Your task to perform on an android device: Find coffee shops on Maps Image 0: 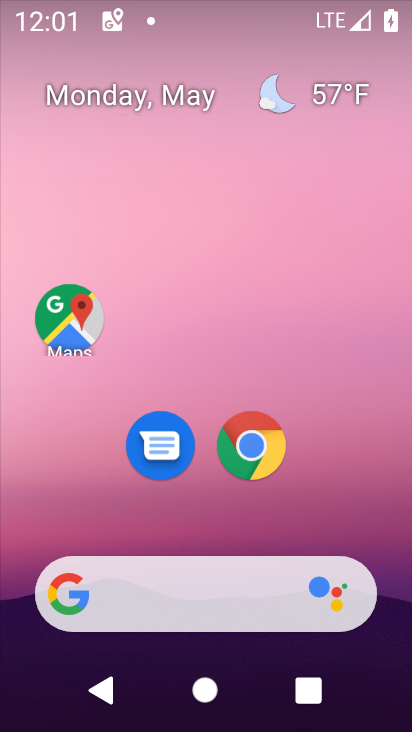
Step 0: click (59, 325)
Your task to perform on an android device: Find coffee shops on Maps Image 1: 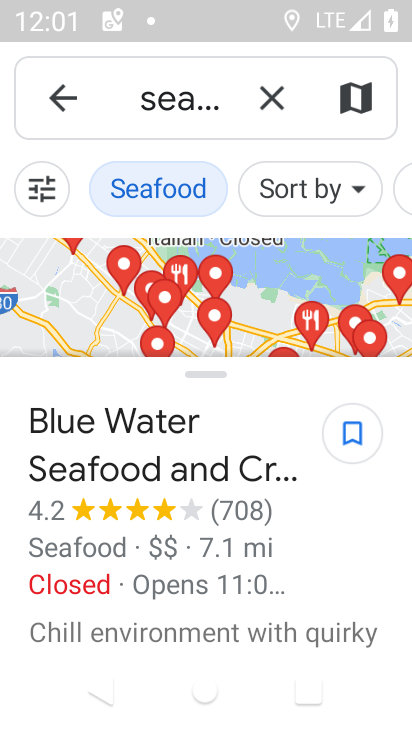
Step 1: click (276, 91)
Your task to perform on an android device: Find coffee shops on Maps Image 2: 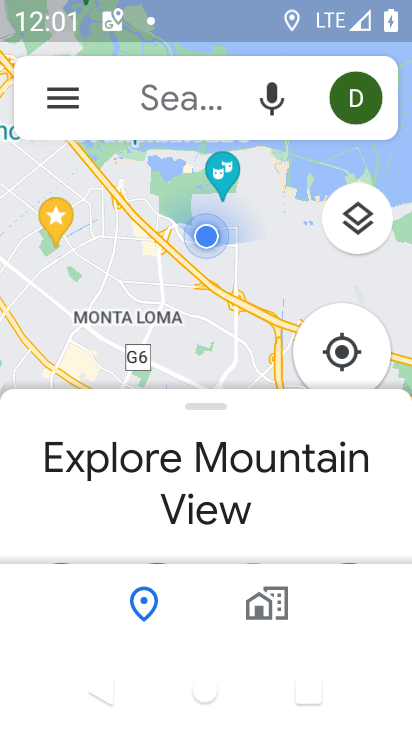
Step 2: click (167, 107)
Your task to perform on an android device: Find coffee shops on Maps Image 3: 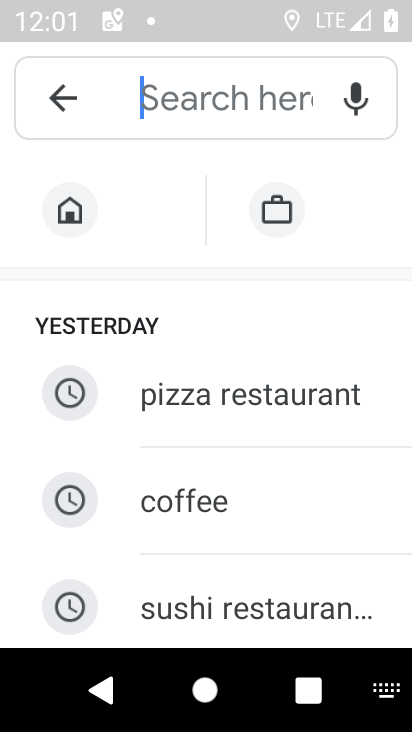
Step 3: drag from (267, 520) to (250, 225)
Your task to perform on an android device: Find coffee shops on Maps Image 4: 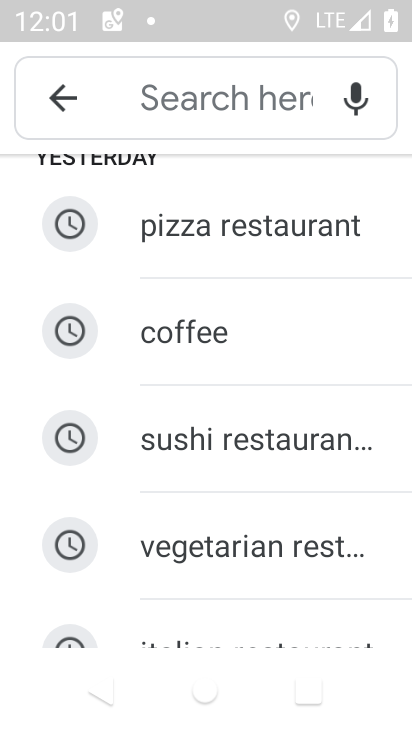
Step 4: drag from (259, 581) to (238, 211)
Your task to perform on an android device: Find coffee shops on Maps Image 5: 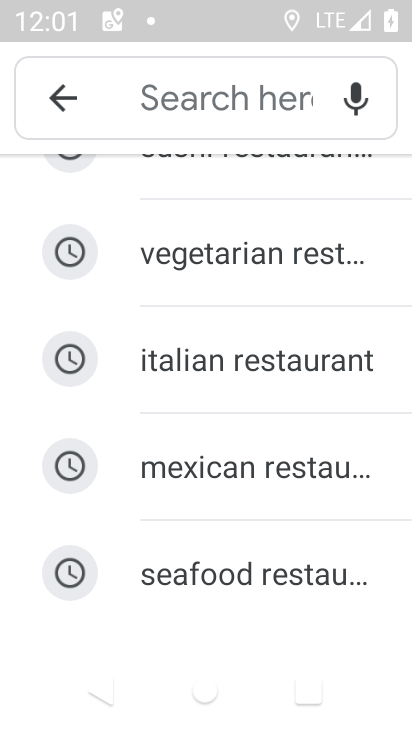
Step 5: type "coffee shops"
Your task to perform on an android device: Find coffee shops on Maps Image 6: 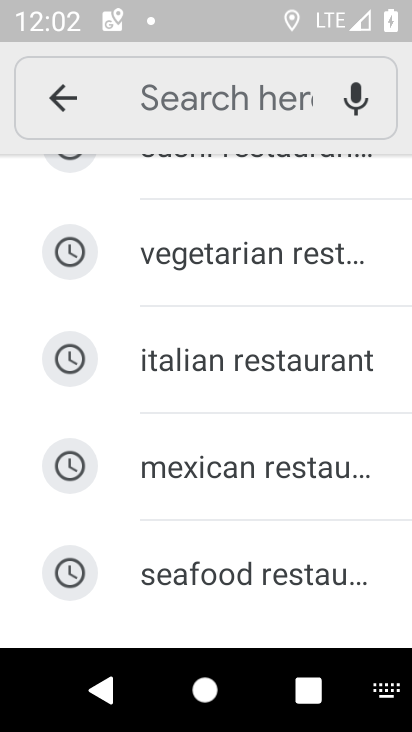
Step 6: type "coffee shop"
Your task to perform on an android device: Find coffee shops on Maps Image 7: 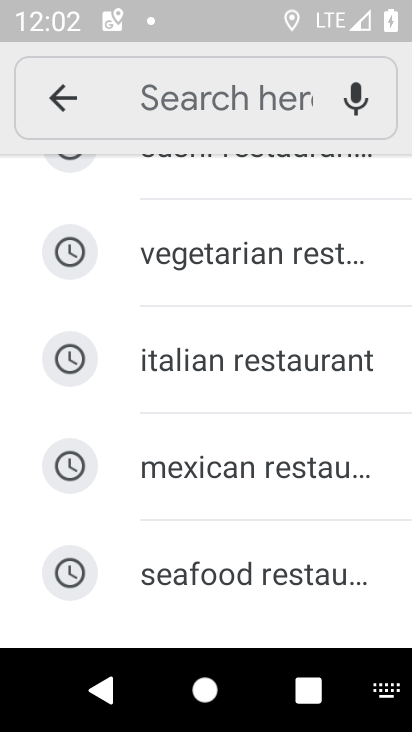
Step 7: drag from (200, 527) to (257, 231)
Your task to perform on an android device: Find coffee shops on Maps Image 8: 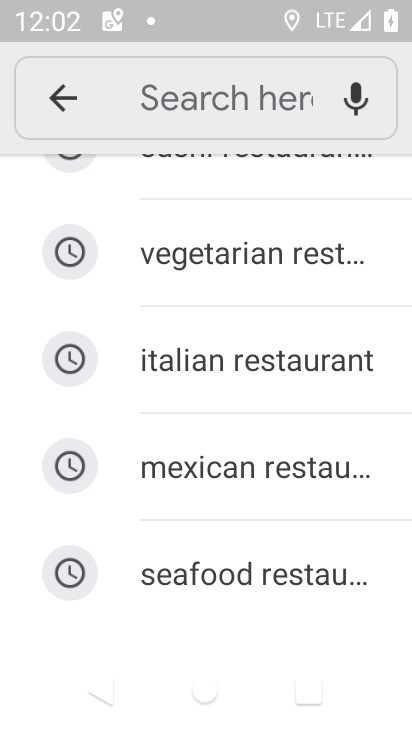
Step 8: drag from (266, 164) to (213, 553)
Your task to perform on an android device: Find coffee shops on Maps Image 9: 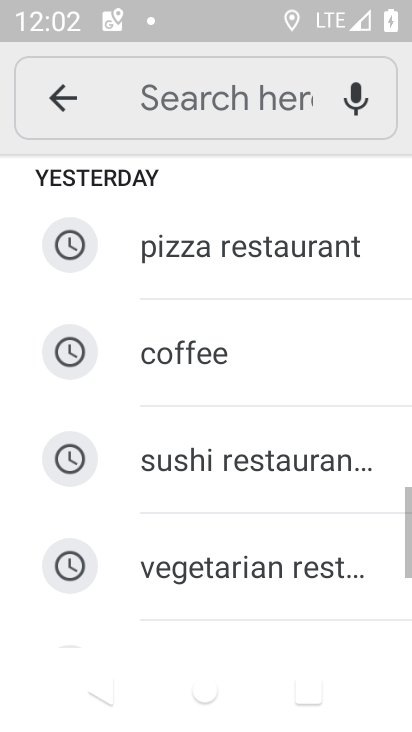
Step 9: drag from (240, 132) to (199, 573)
Your task to perform on an android device: Find coffee shops on Maps Image 10: 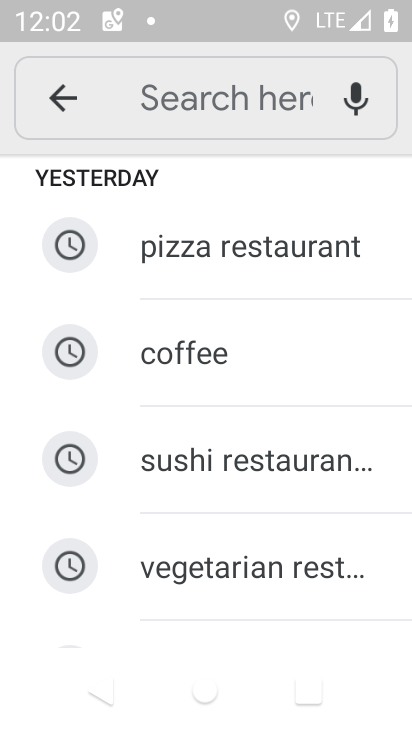
Step 10: type "coffee shop"
Your task to perform on an android device: Find coffee shops on Maps Image 11: 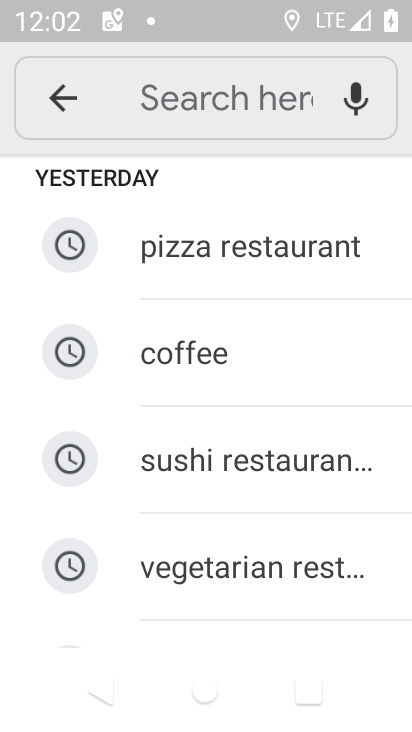
Step 11: task complete